Your task to perform on an android device: allow notifications from all sites in the chrome app Image 0: 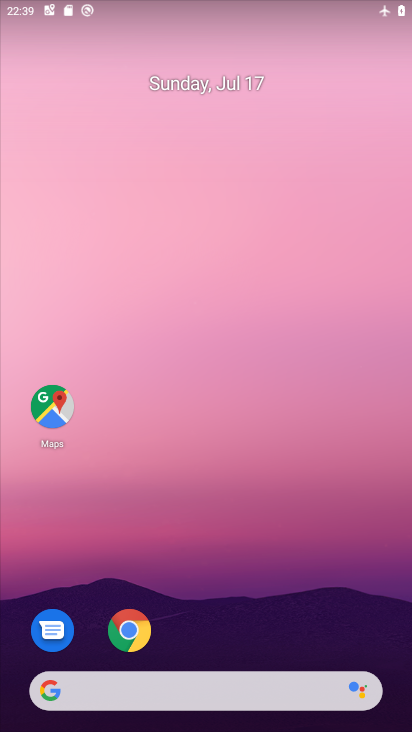
Step 0: drag from (207, 609) to (185, 71)
Your task to perform on an android device: allow notifications from all sites in the chrome app Image 1: 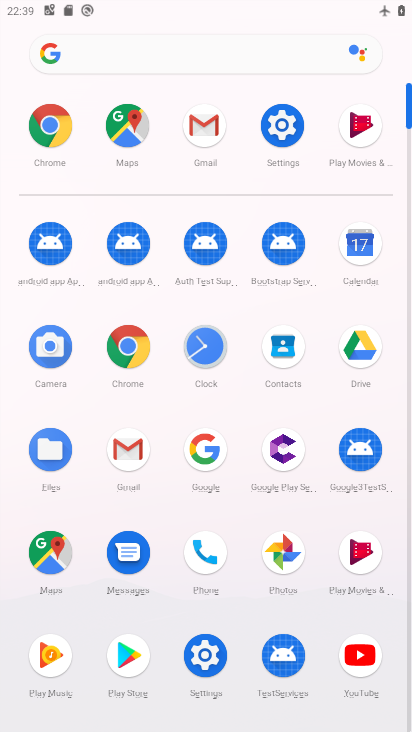
Step 1: click (129, 351)
Your task to perform on an android device: allow notifications from all sites in the chrome app Image 2: 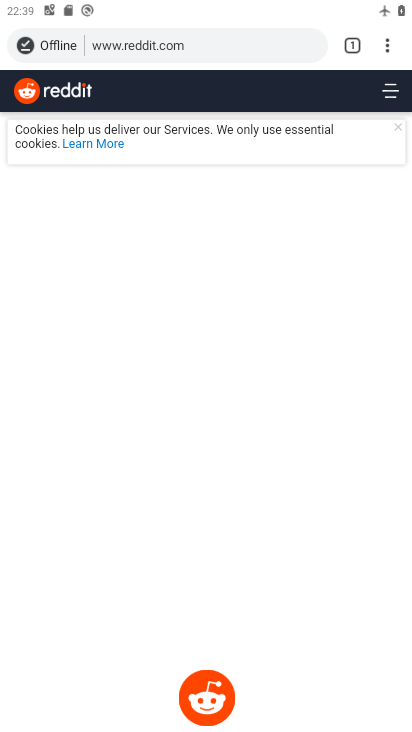
Step 2: click (390, 45)
Your task to perform on an android device: allow notifications from all sites in the chrome app Image 3: 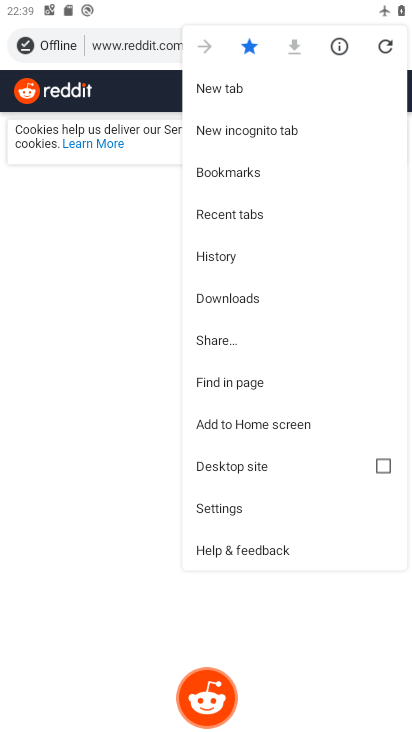
Step 3: click (227, 512)
Your task to perform on an android device: allow notifications from all sites in the chrome app Image 4: 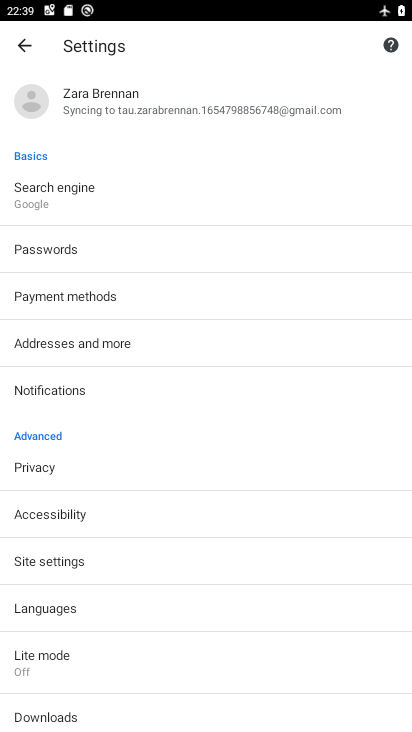
Step 4: click (72, 392)
Your task to perform on an android device: allow notifications from all sites in the chrome app Image 5: 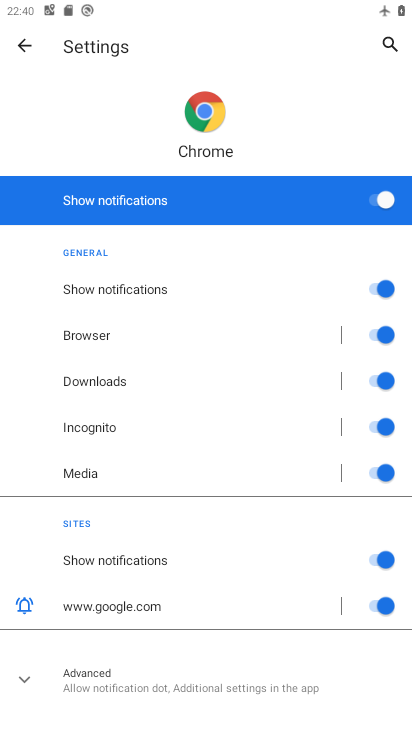
Step 5: task complete